Your task to perform on an android device: Add acer predator to the cart on amazon, then select checkout. Image 0: 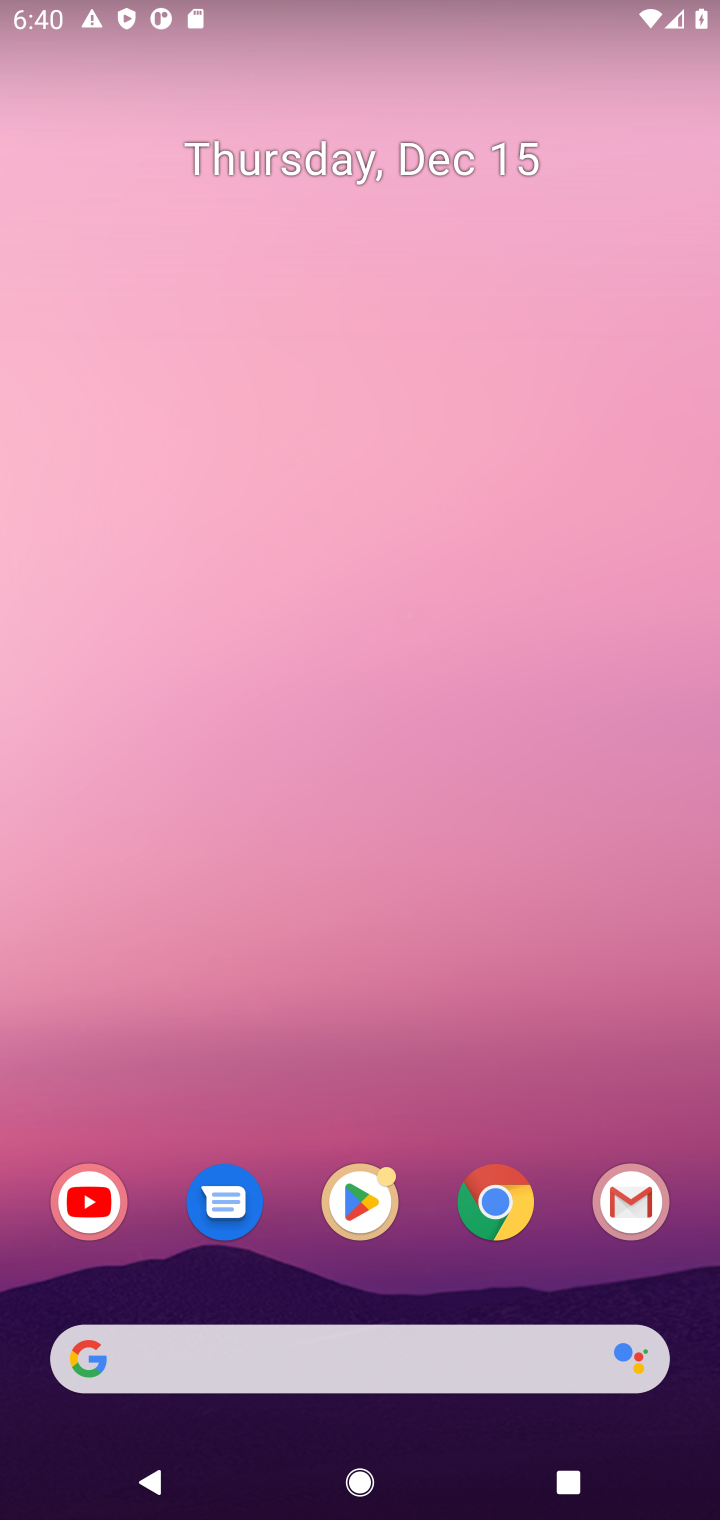
Step 0: click (473, 1192)
Your task to perform on an android device: Add acer predator to the cart on amazon, then select checkout. Image 1: 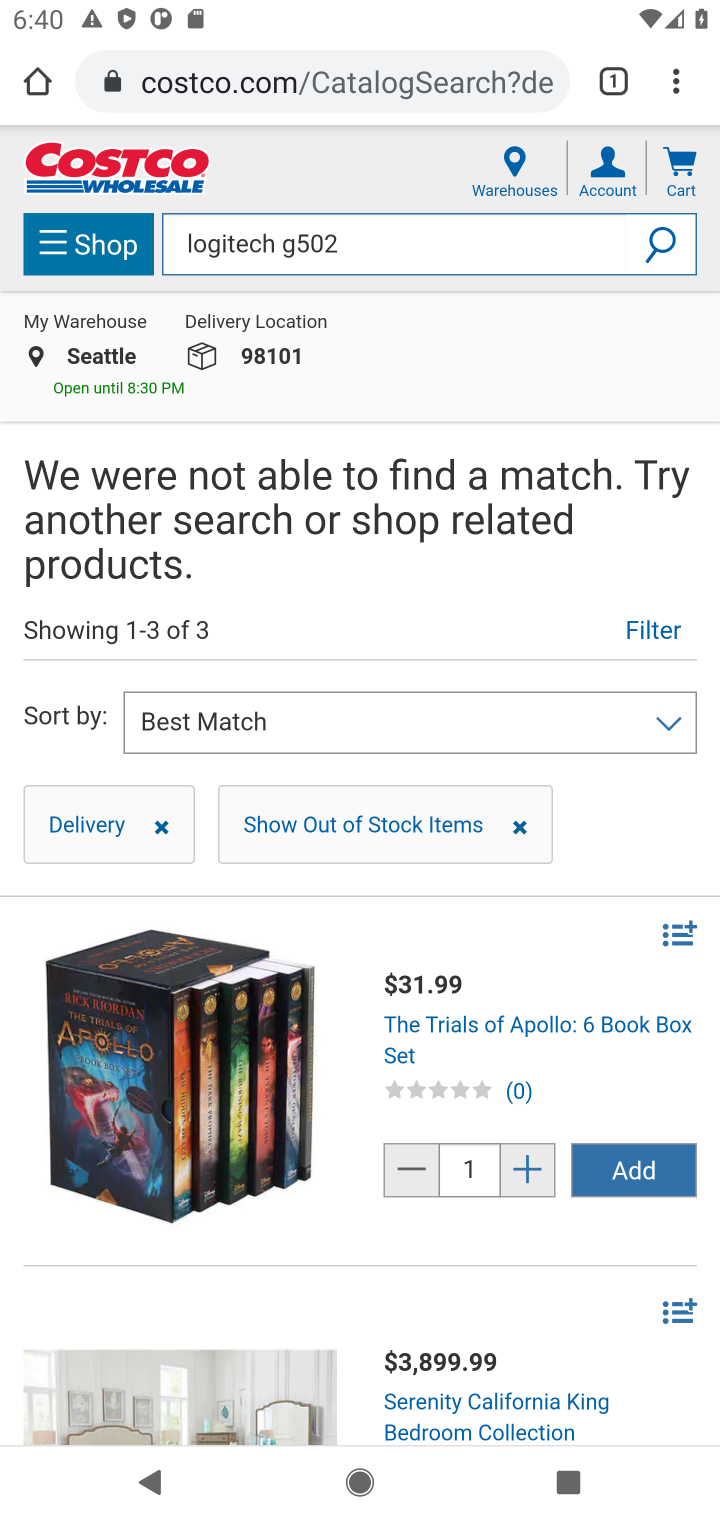
Step 1: click (258, 93)
Your task to perform on an android device: Add acer predator to the cart on amazon, then select checkout. Image 2: 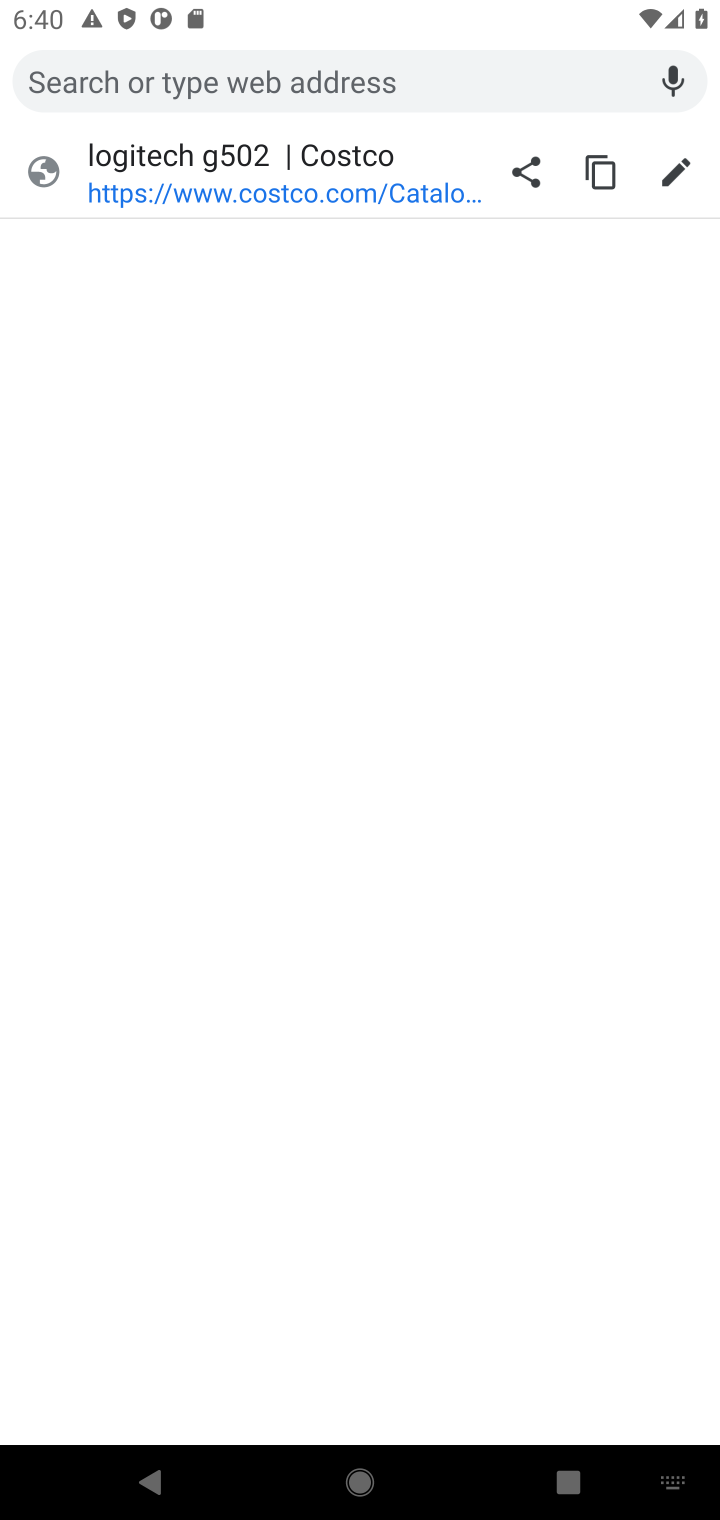
Step 2: type "amazon.com"
Your task to perform on an android device: Add acer predator to the cart on amazon, then select checkout. Image 3: 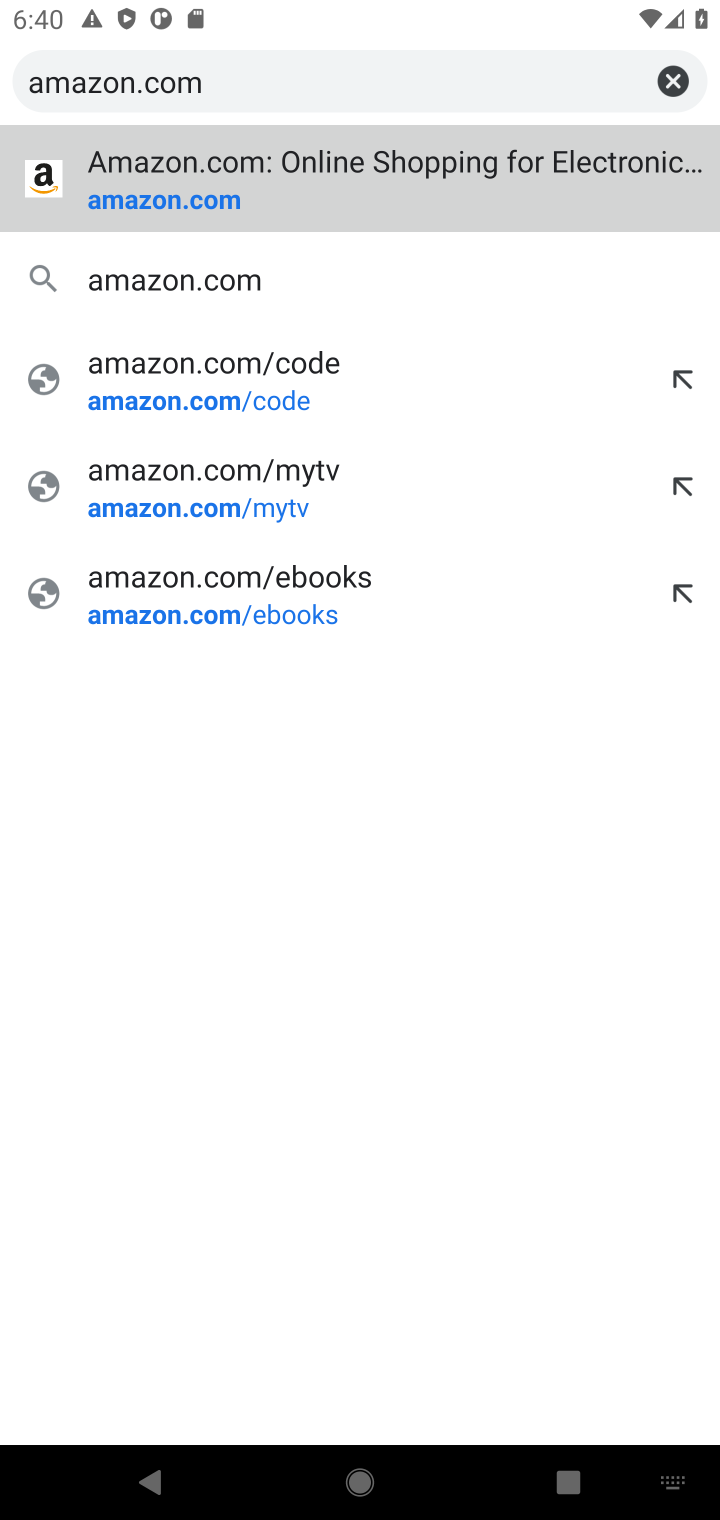
Step 3: click (157, 206)
Your task to perform on an android device: Add acer predator to the cart on amazon, then select checkout. Image 4: 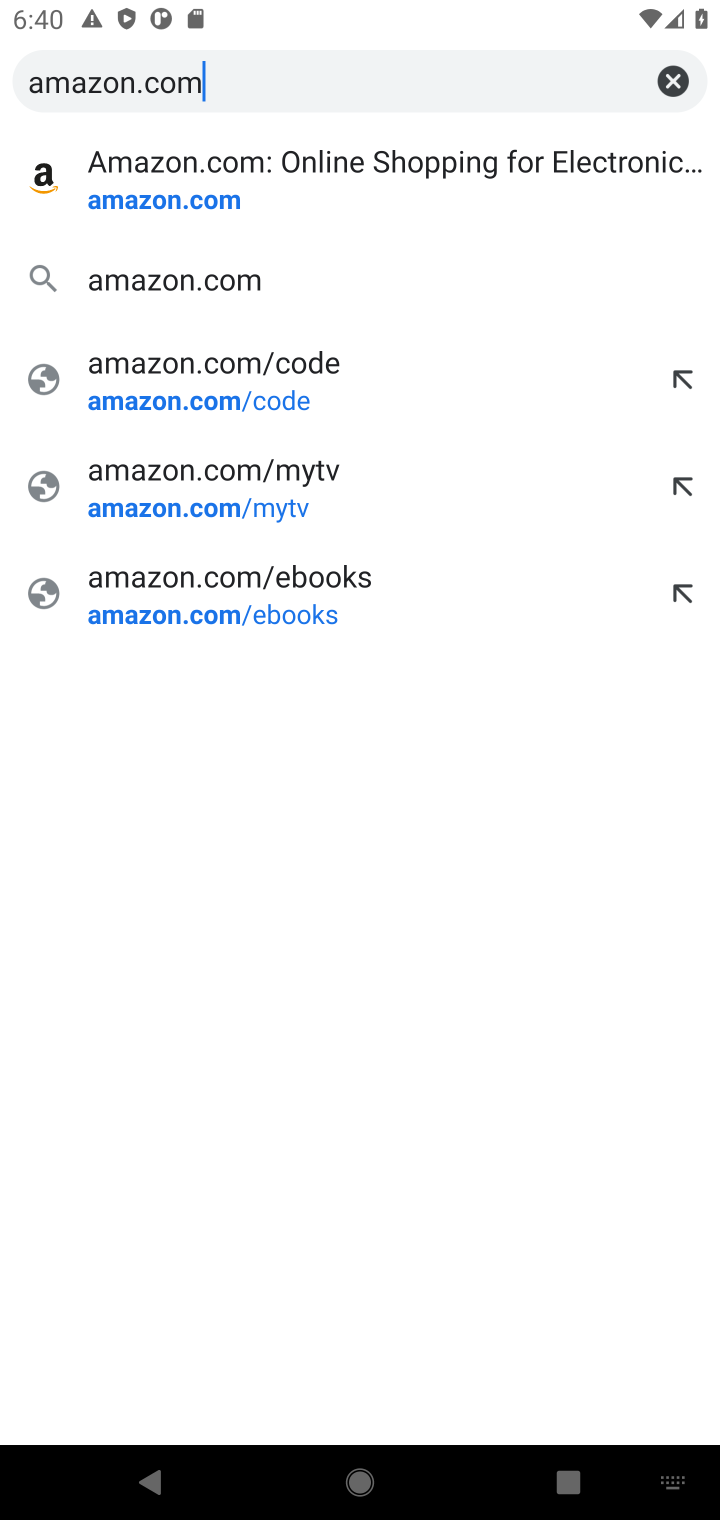
Step 4: click (172, 197)
Your task to perform on an android device: Add acer predator to the cart on amazon, then select checkout. Image 5: 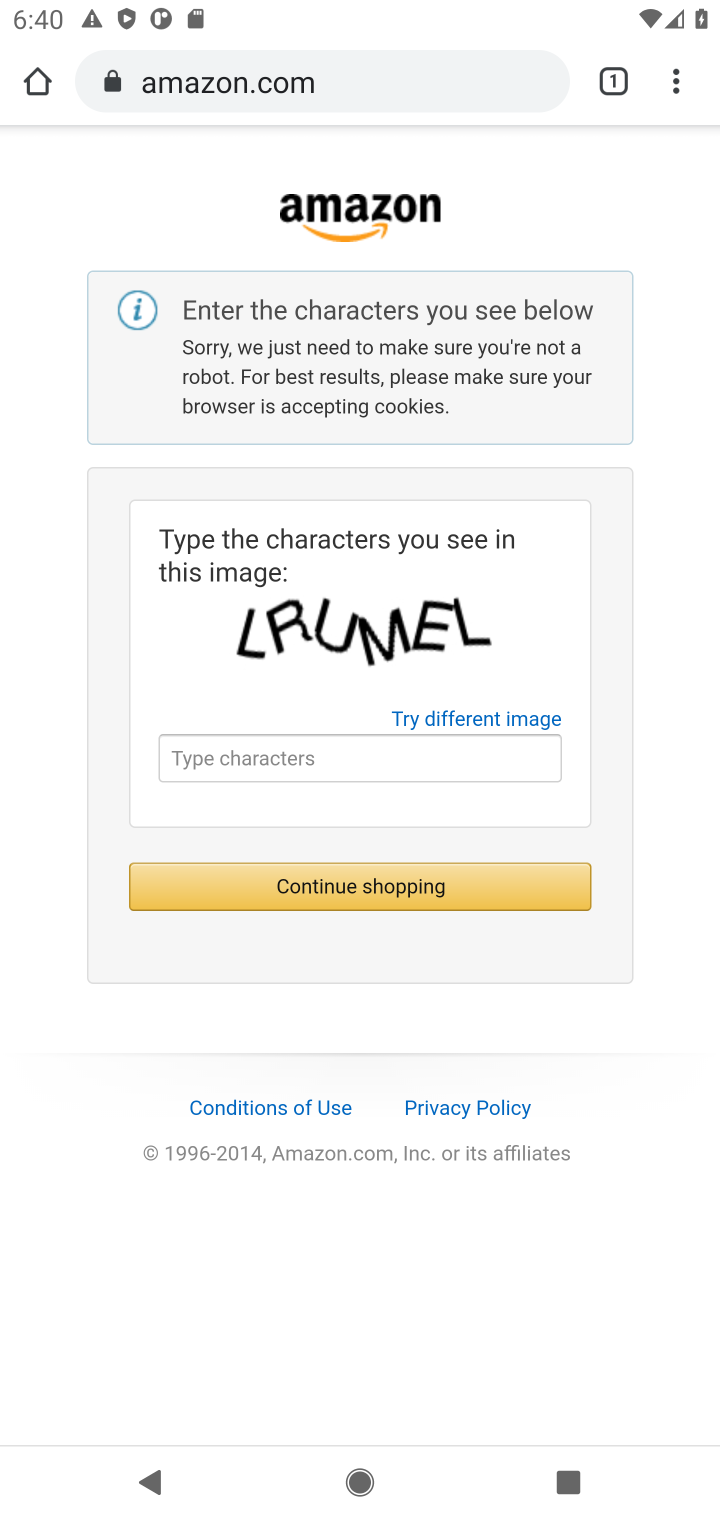
Step 5: click (250, 754)
Your task to perform on an android device: Add acer predator to the cart on amazon, then select checkout. Image 6: 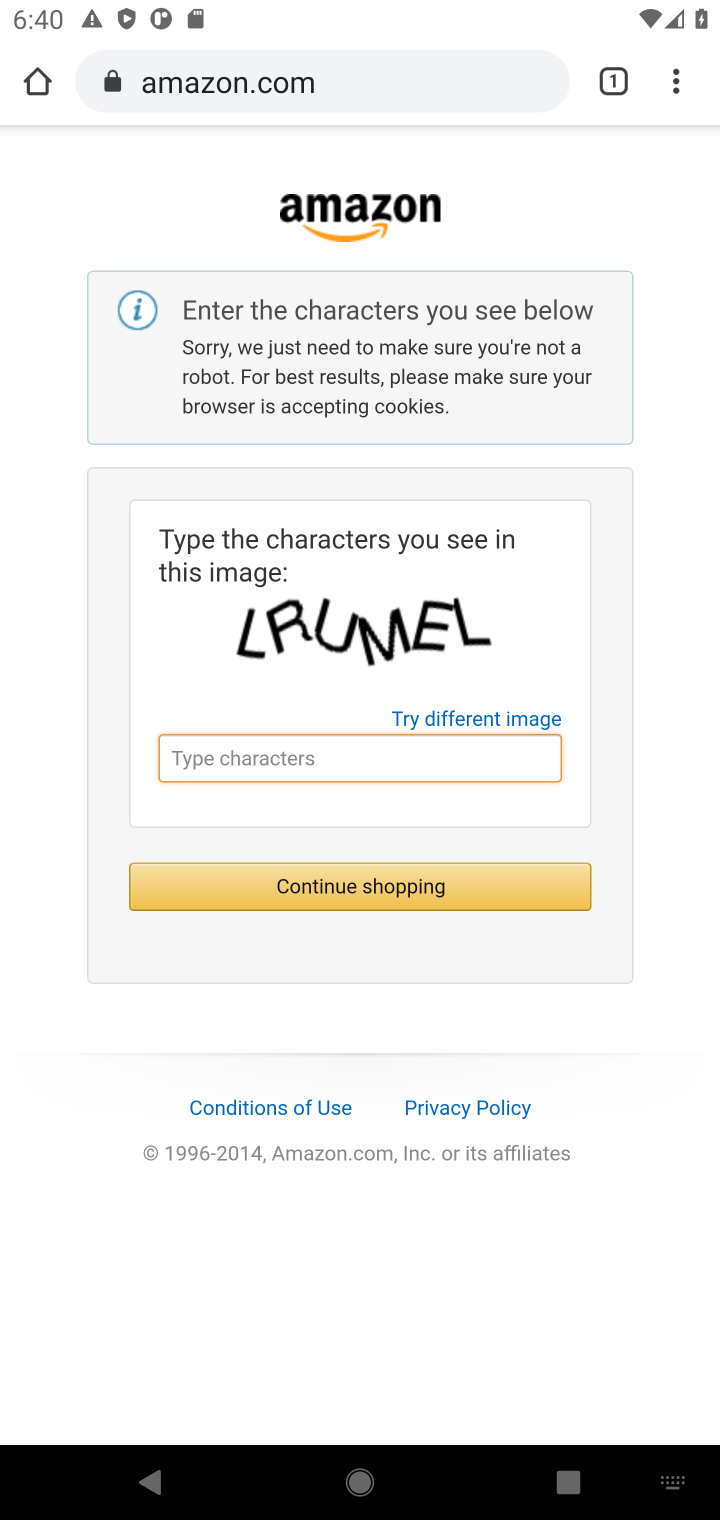
Step 6: type "LRUMEL"
Your task to perform on an android device: Add acer predator to the cart on amazon, then select checkout. Image 7: 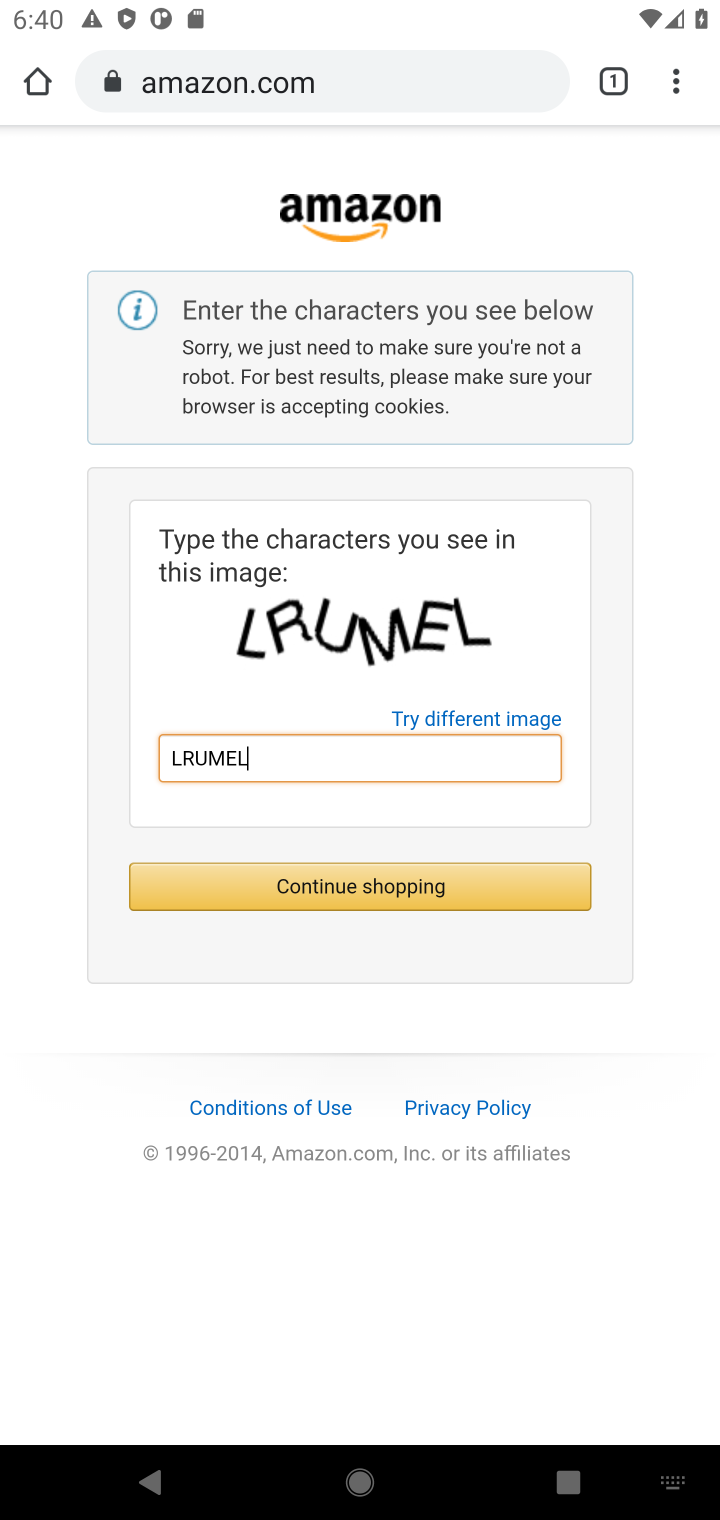
Step 7: click (374, 877)
Your task to perform on an android device: Add acer predator to the cart on amazon, then select checkout. Image 8: 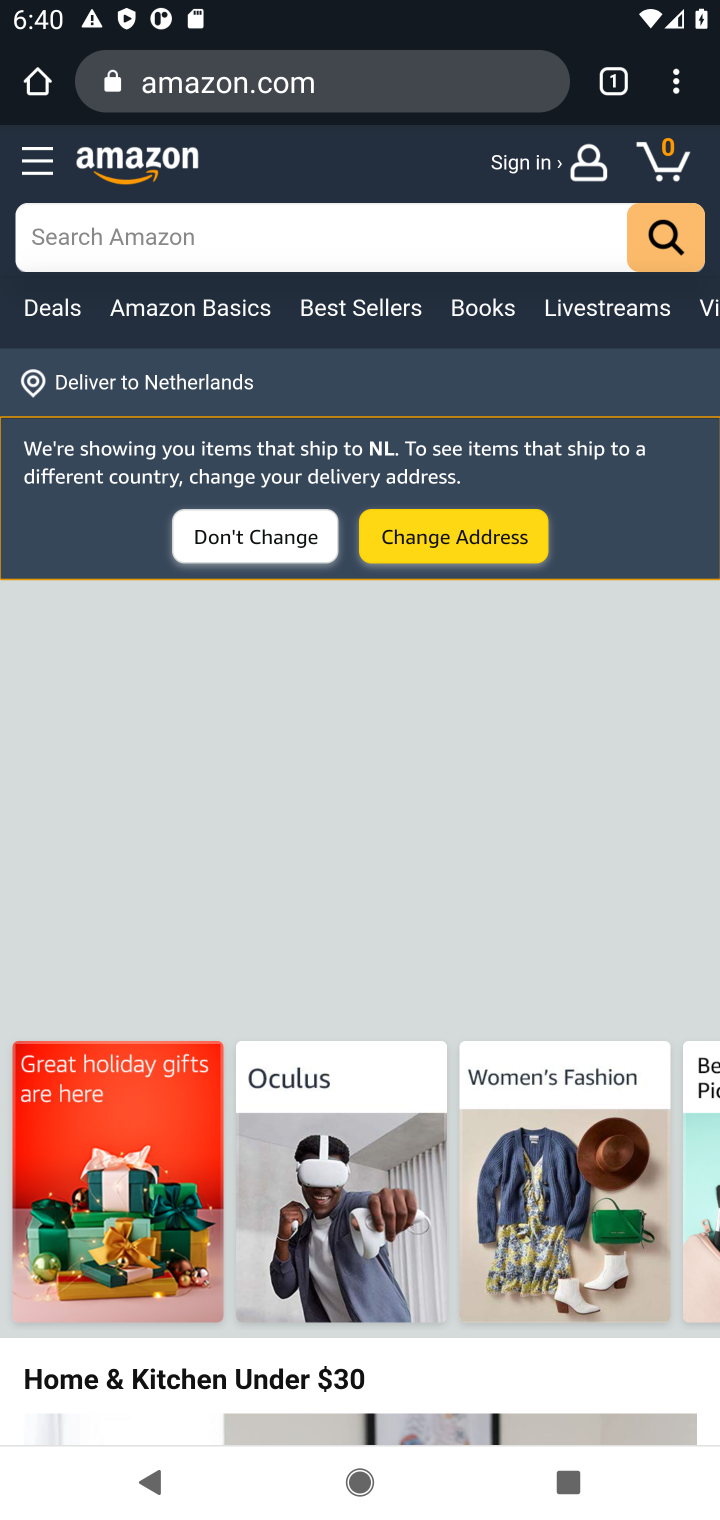
Step 8: click (193, 248)
Your task to perform on an android device: Add acer predator to the cart on amazon, then select checkout. Image 9: 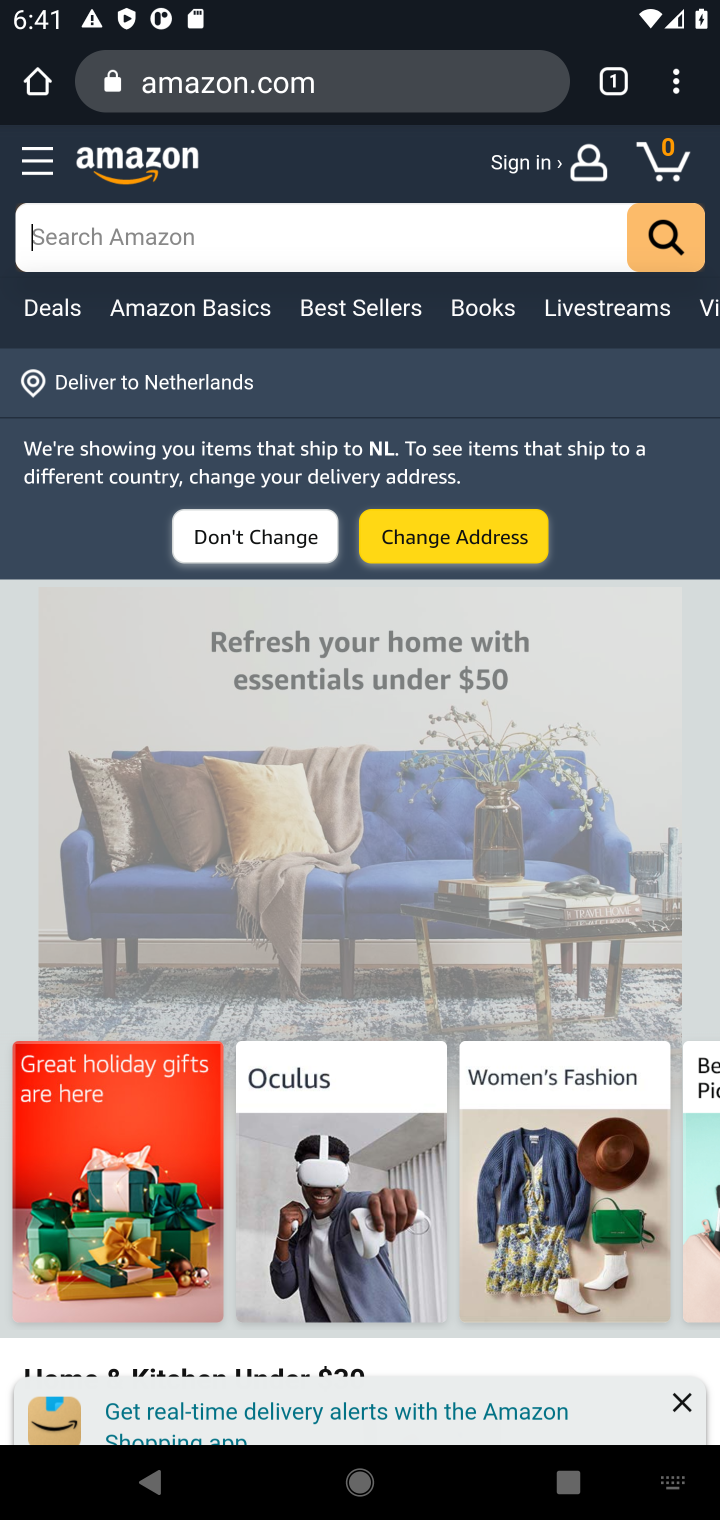
Step 9: type " acer predator"
Your task to perform on an android device: Add acer predator to the cart on amazon, then select checkout. Image 10: 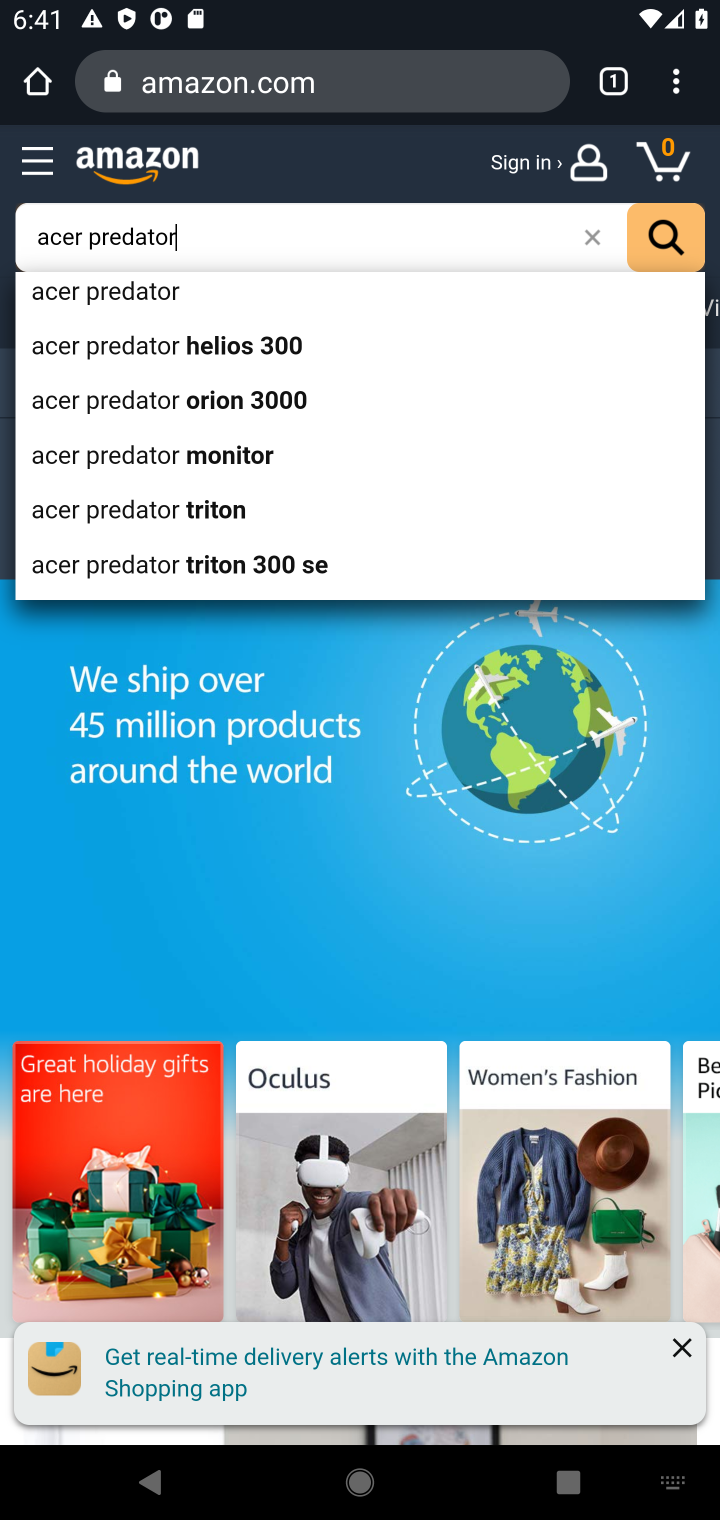
Step 10: click (78, 296)
Your task to perform on an android device: Add acer predator to the cart on amazon, then select checkout. Image 11: 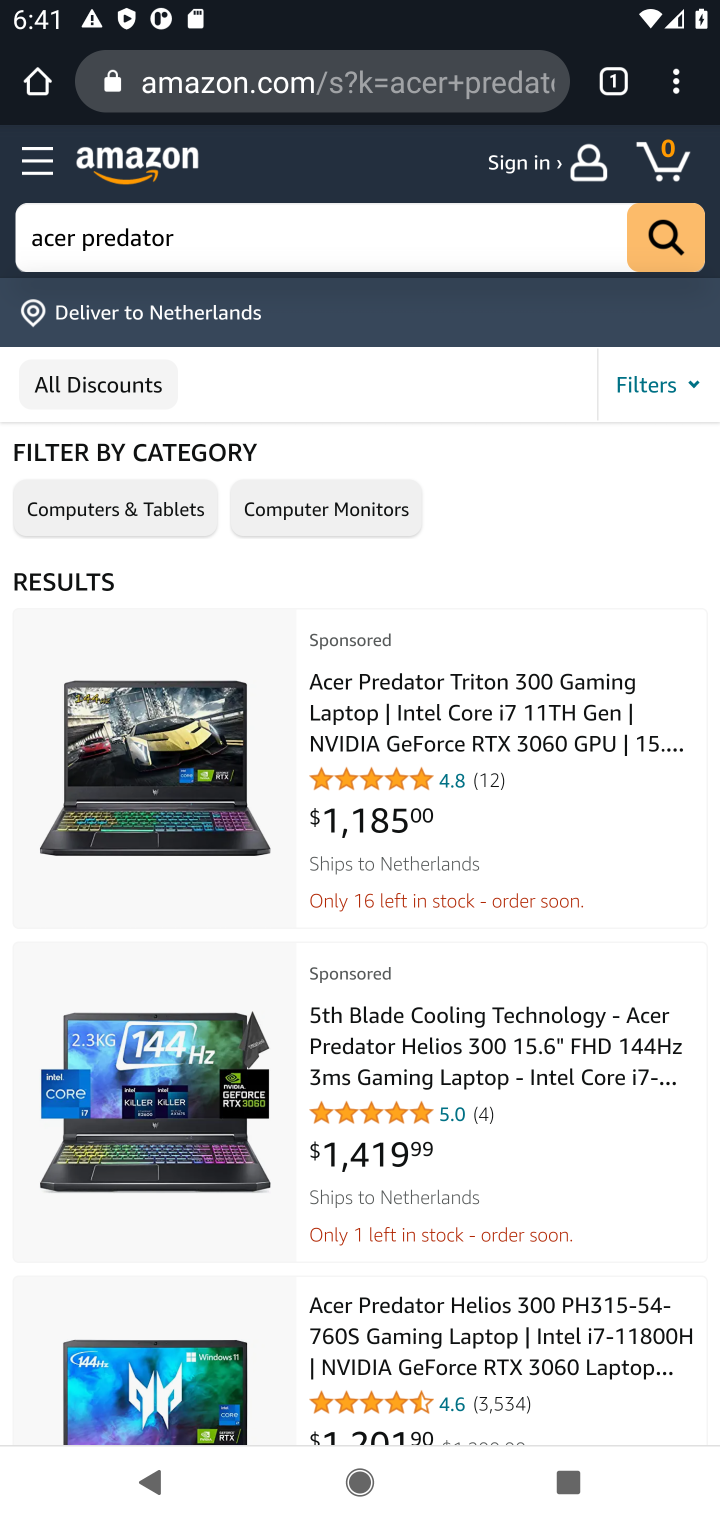
Step 11: click (364, 741)
Your task to perform on an android device: Add acer predator to the cart on amazon, then select checkout. Image 12: 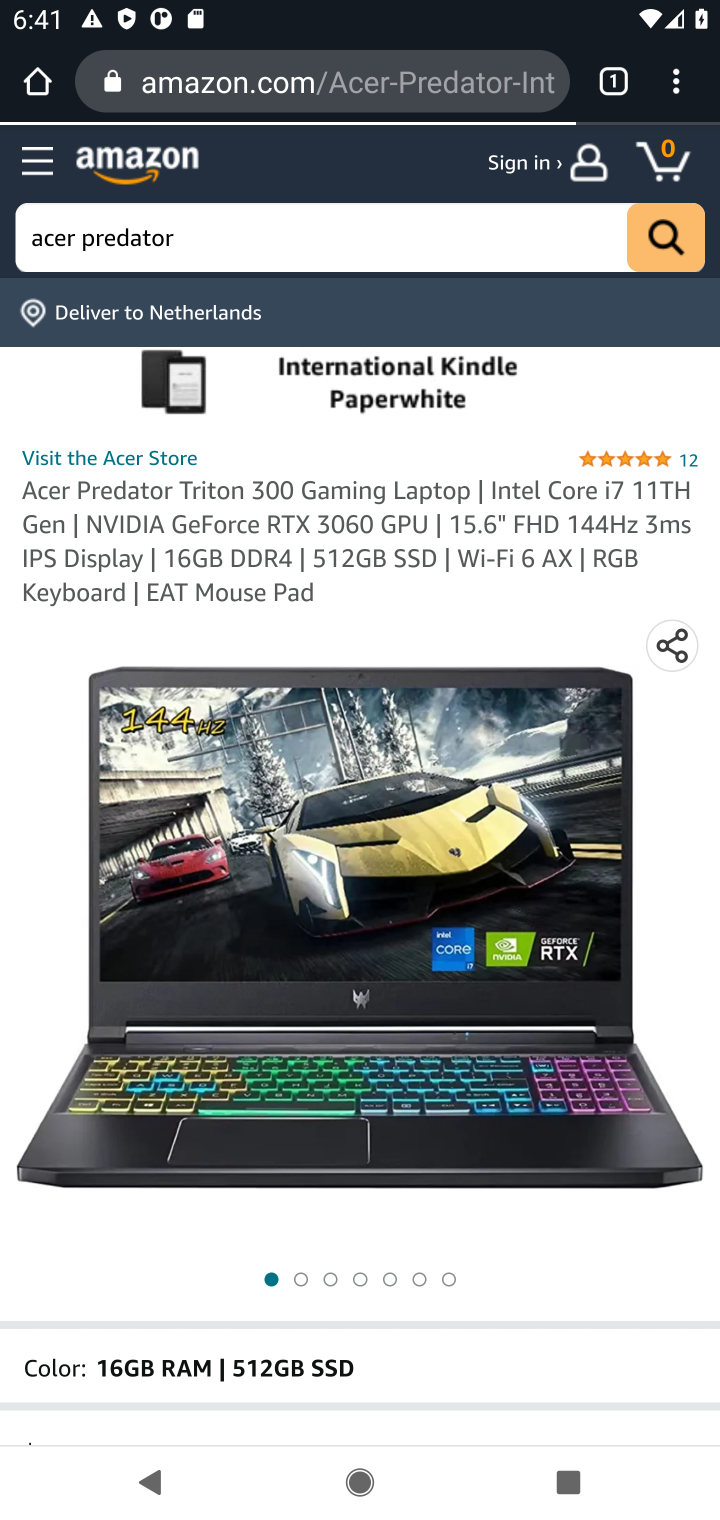
Step 12: drag from (371, 889) to (414, 480)
Your task to perform on an android device: Add acer predator to the cart on amazon, then select checkout. Image 13: 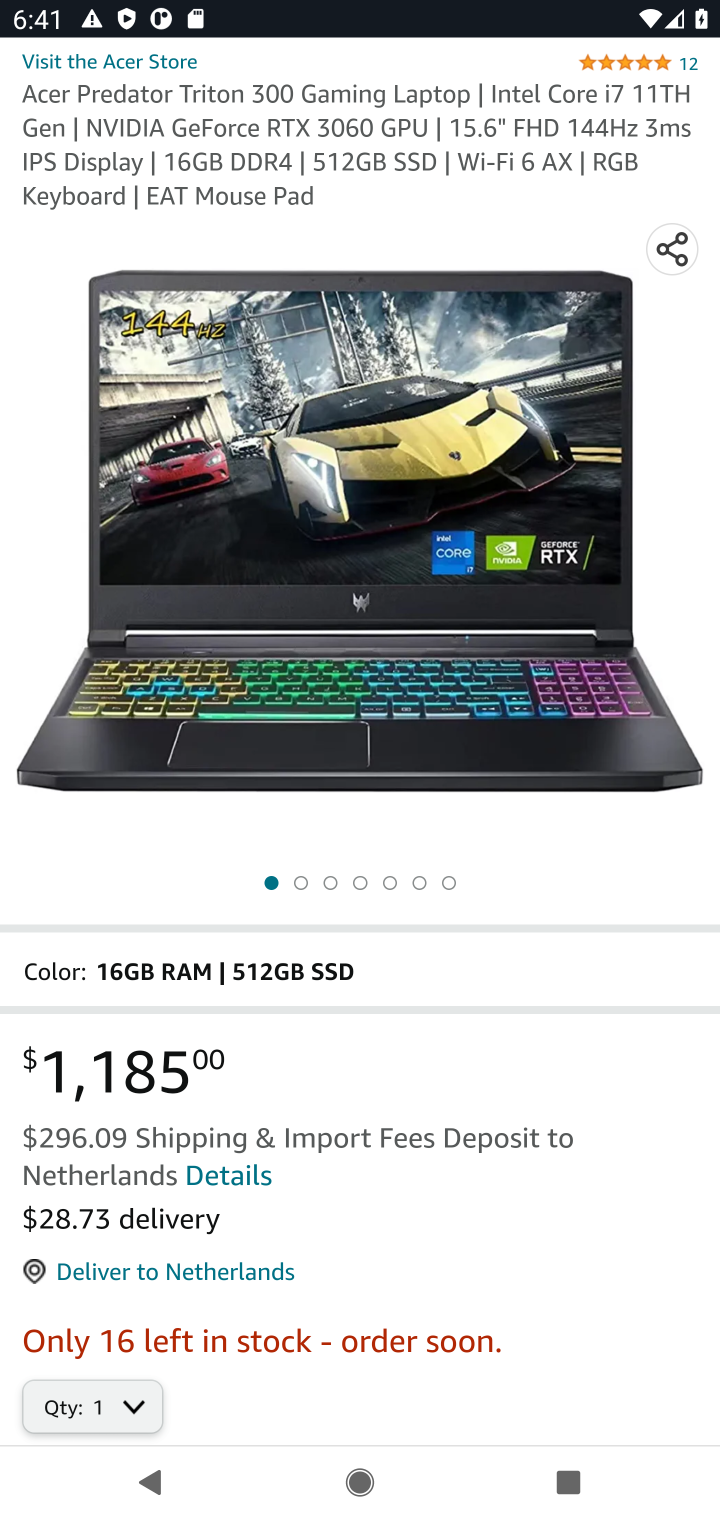
Step 13: drag from (343, 897) to (360, 530)
Your task to perform on an android device: Add acer predator to the cart on amazon, then select checkout. Image 14: 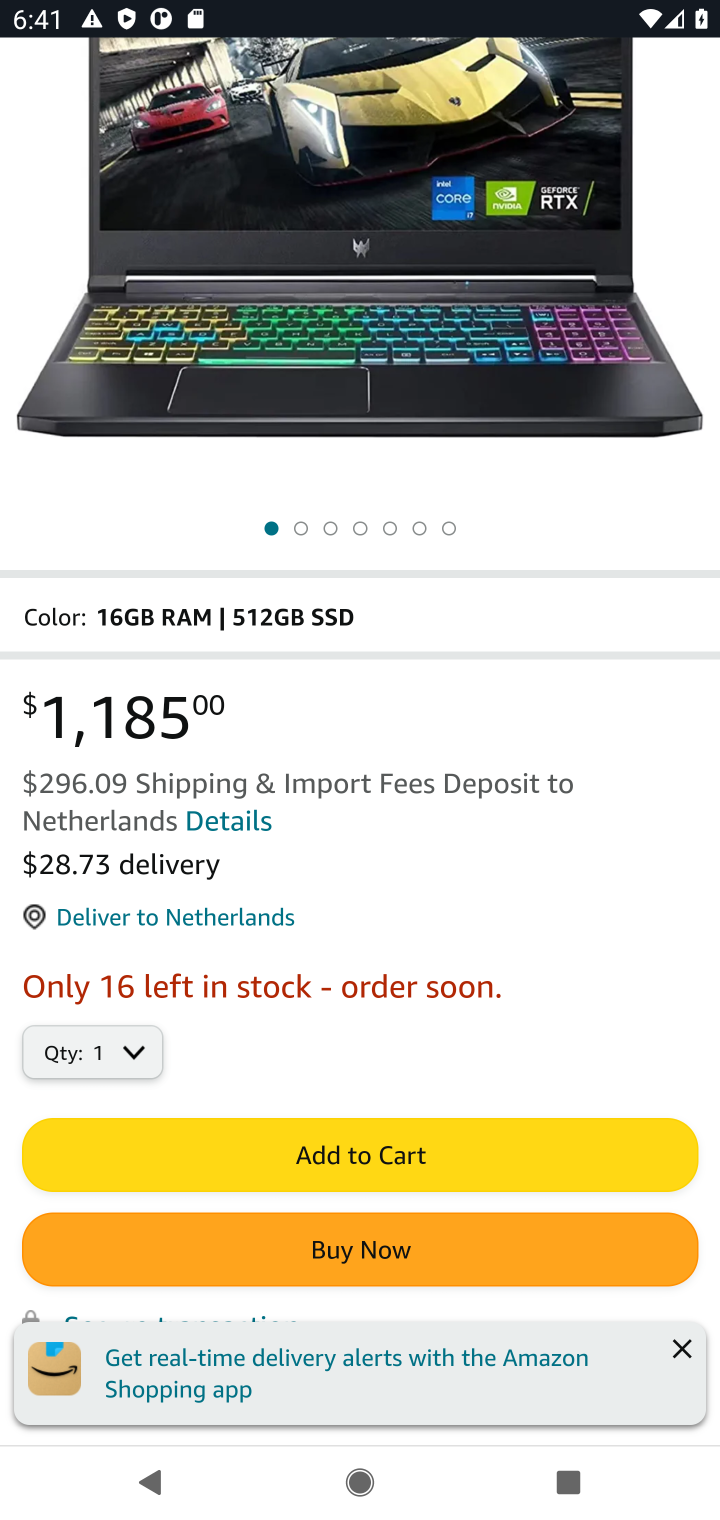
Step 14: click (345, 1154)
Your task to perform on an android device: Add acer predator to the cart on amazon, then select checkout. Image 15: 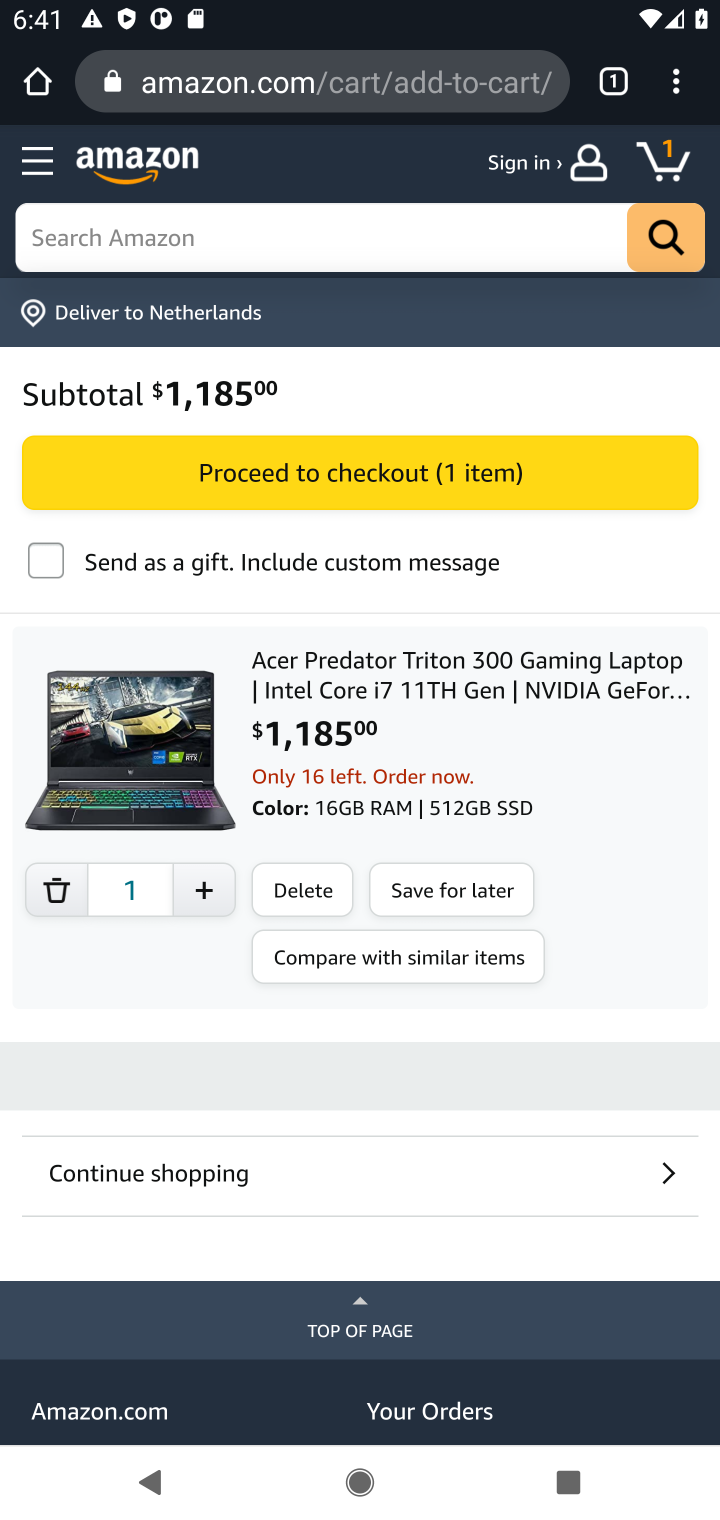
Step 15: click (298, 482)
Your task to perform on an android device: Add acer predator to the cart on amazon, then select checkout. Image 16: 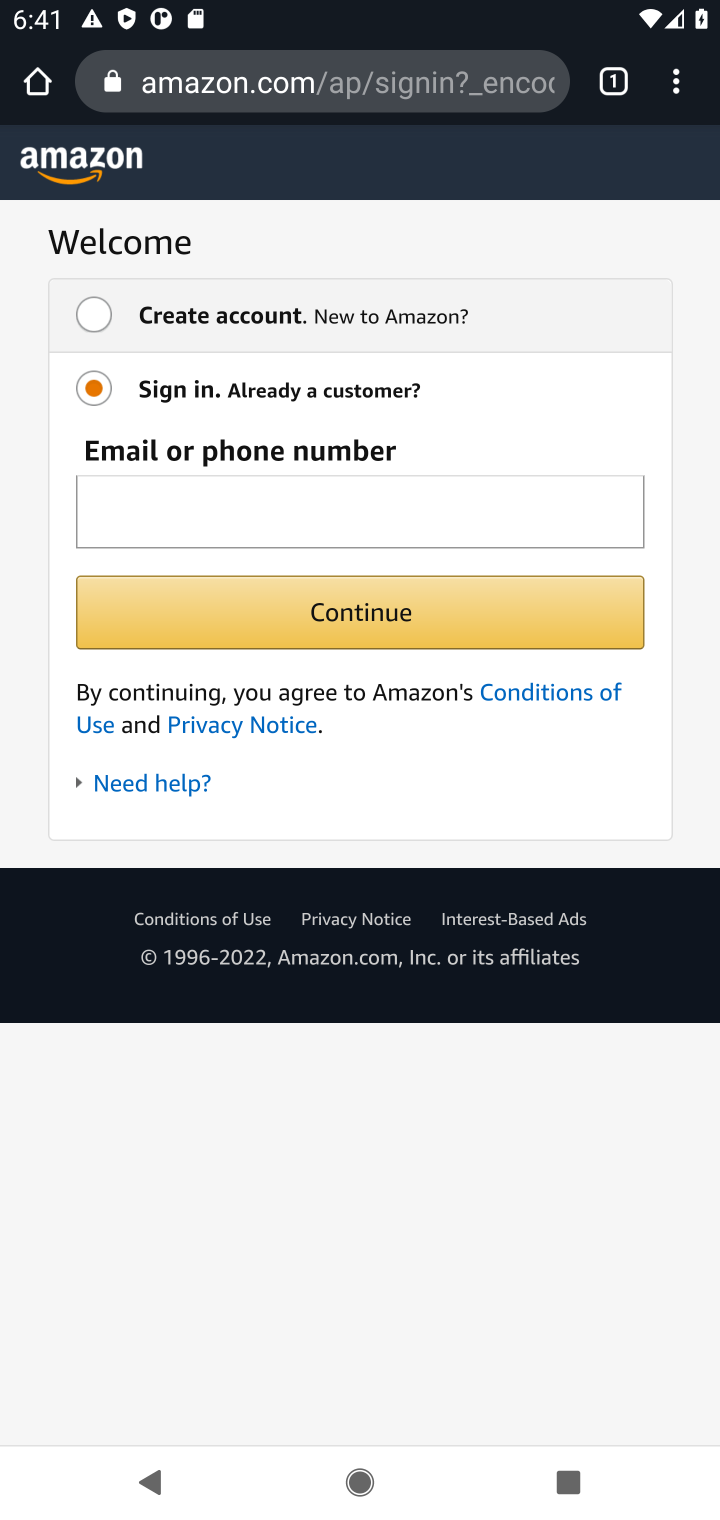
Step 16: task complete